Your task to perform on an android device: Open CNN.com Image 0: 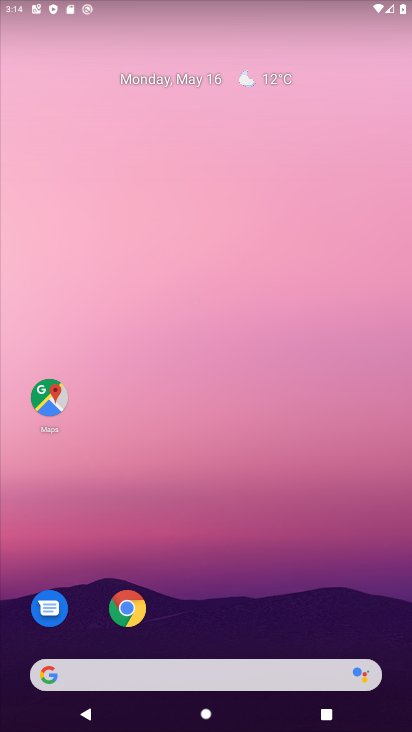
Step 0: click (123, 609)
Your task to perform on an android device: Open CNN.com Image 1: 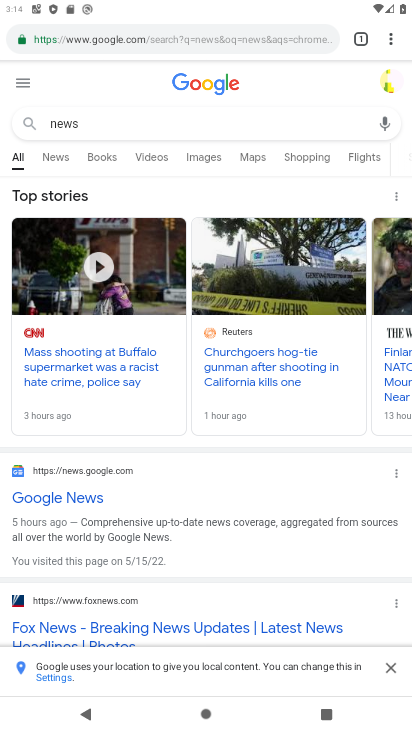
Step 1: click (141, 33)
Your task to perform on an android device: Open CNN.com Image 2: 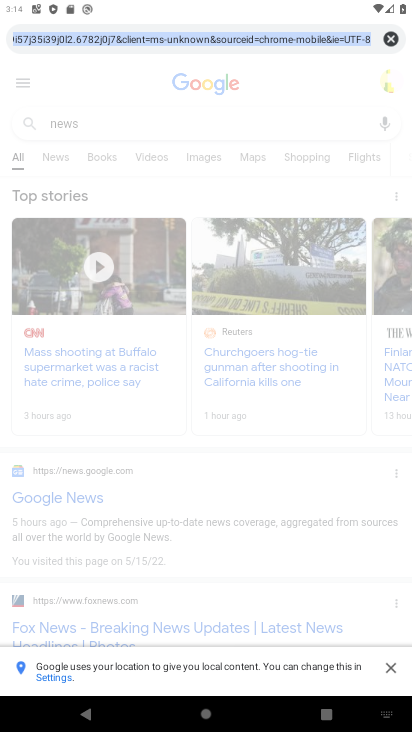
Step 2: type "CNN.com"
Your task to perform on an android device: Open CNN.com Image 3: 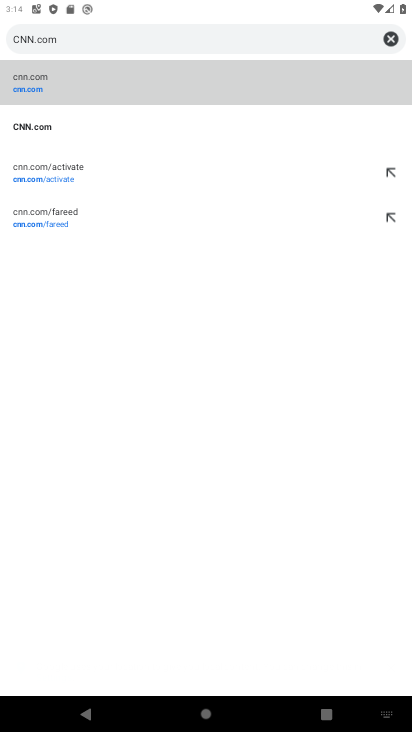
Step 3: click (152, 90)
Your task to perform on an android device: Open CNN.com Image 4: 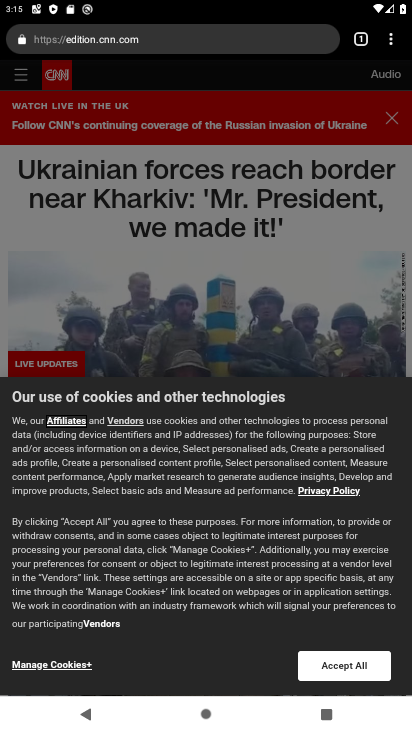
Step 4: press home button
Your task to perform on an android device: Open CNN.com Image 5: 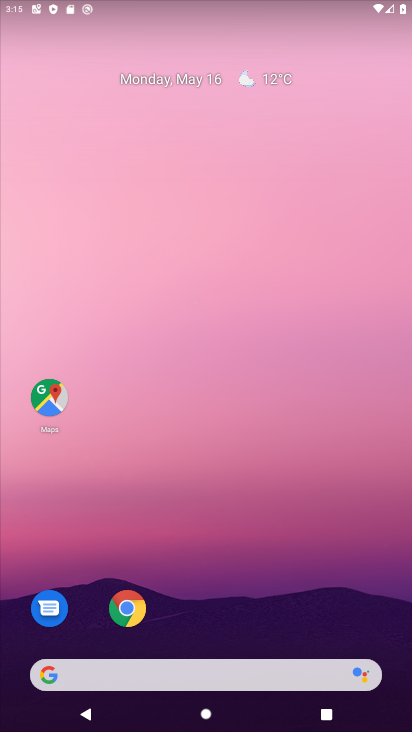
Step 5: click (125, 610)
Your task to perform on an android device: Open CNN.com Image 6: 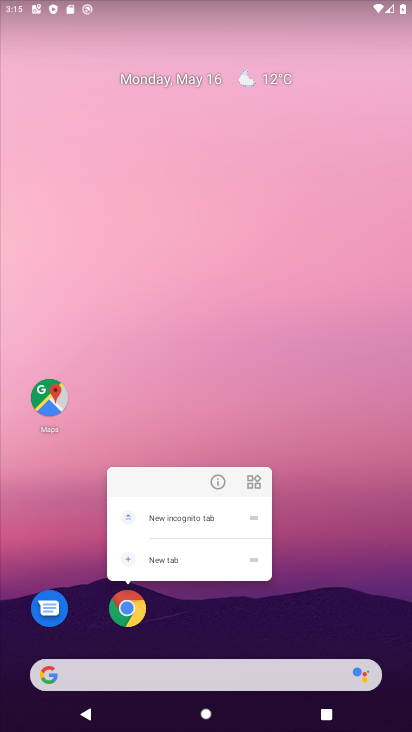
Step 6: click (222, 479)
Your task to perform on an android device: Open CNN.com Image 7: 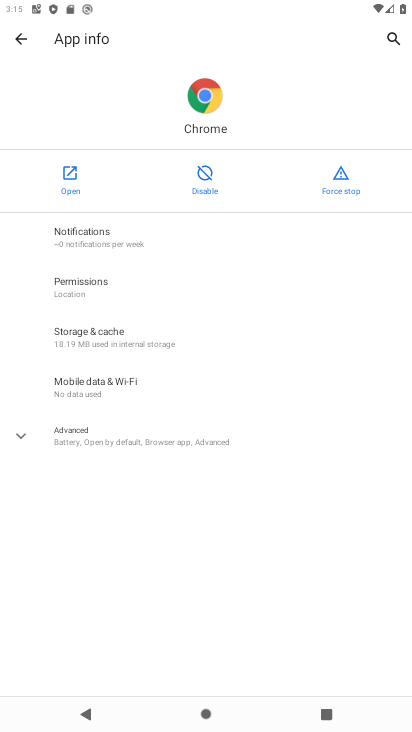
Step 7: click (67, 185)
Your task to perform on an android device: Open CNN.com Image 8: 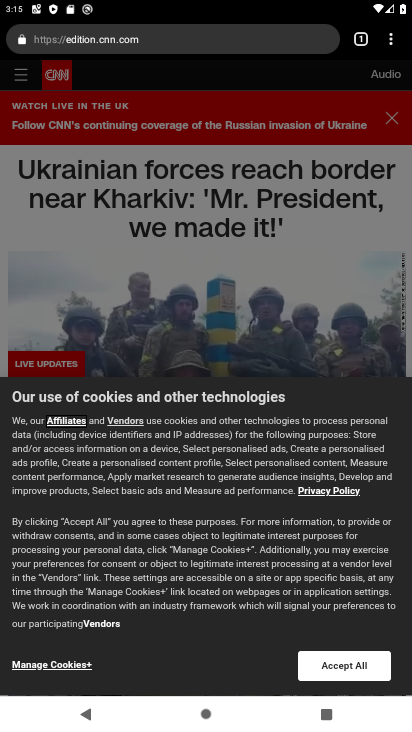
Step 8: type "CNN.com"
Your task to perform on an android device: Open CNN.com Image 9: 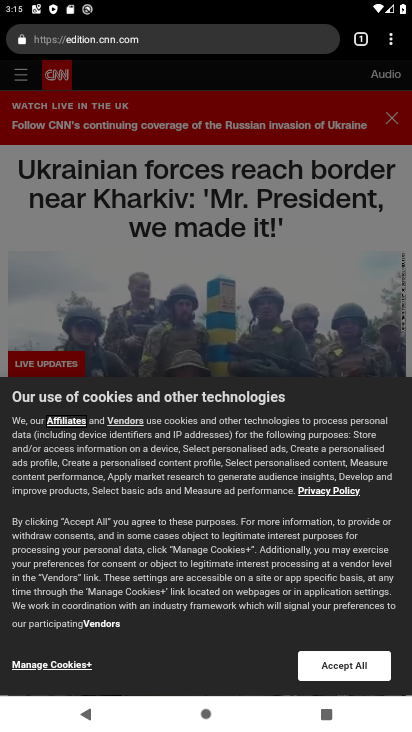
Step 9: click (90, 48)
Your task to perform on an android device: Open CNN.com Image 10: 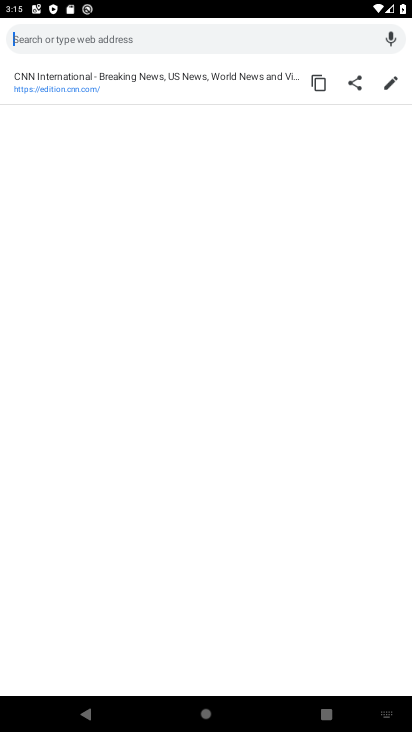
Step 10: type "CNN.com"
Your task to perform on an android device: Open CNN.com Image 11: 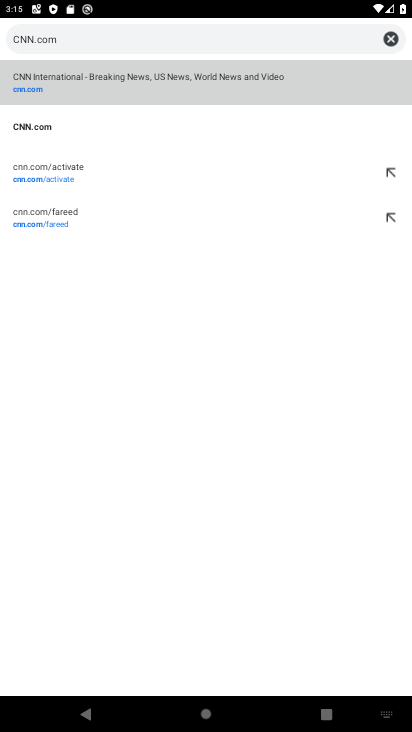
Step 11: click (54, 134)
Your task to perform on an android device: Open CNN.com Image 12: 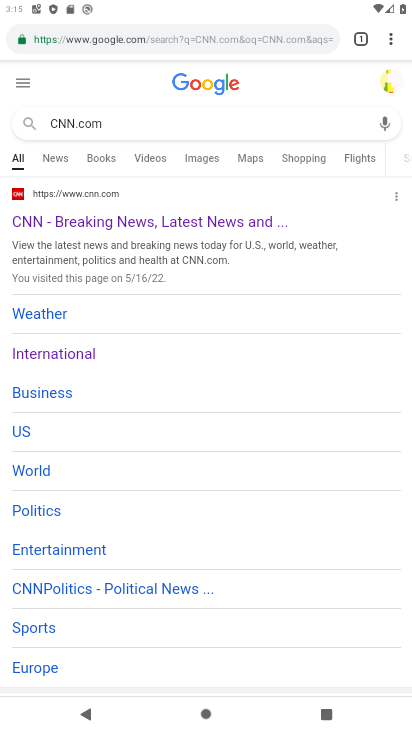
Step 12: task complete